Your task to perform on an android device: delete a single message in the gmail app Image 0: 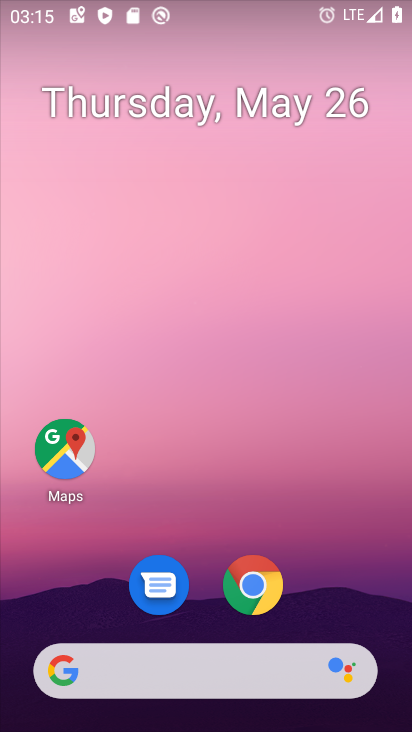
Step 0: drag from (327, 584) to (293, 73)
Your task to perform on an android device: delete a single message in the gmail app Image 1: 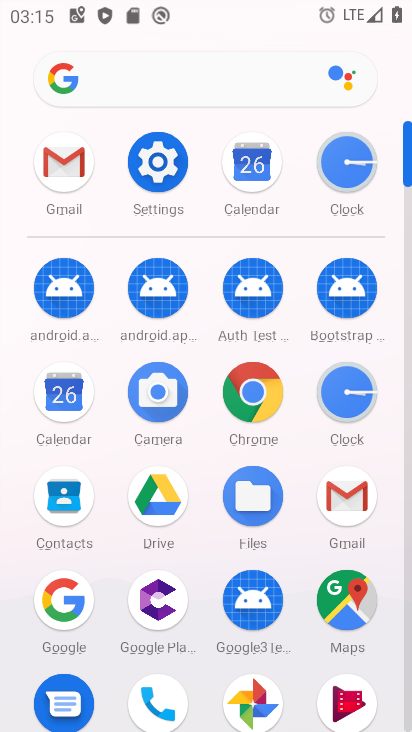
Step 1: click (70, 158)
Your task to perform on an android device: delete a single message in the gmail app Image 2: 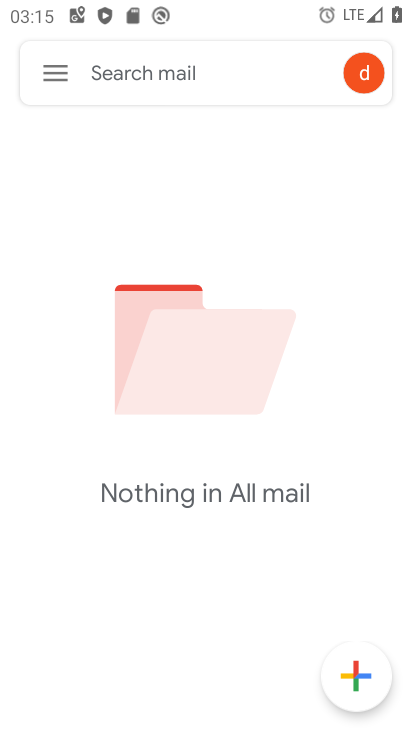
Step 2: task complete